Your task to perform on an android device: find snoozed emails in the gmail app Image 0: 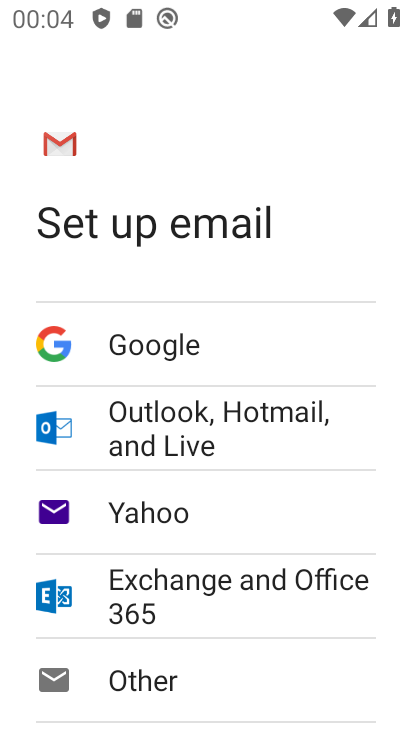
Step 0: press home button
Your task to perform on an android device: find snoozed emails in the gmail app Image 1: 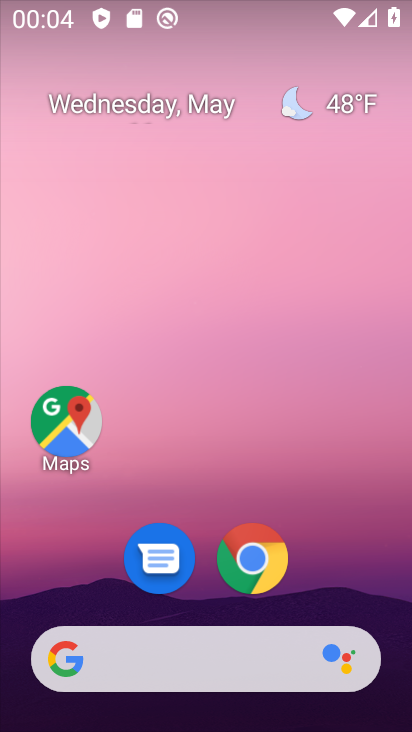
Step 1: drag from (407, 568) to (345, 174)
Your task to perform on an android device: find snoozed emails in the gmail app Image 2: 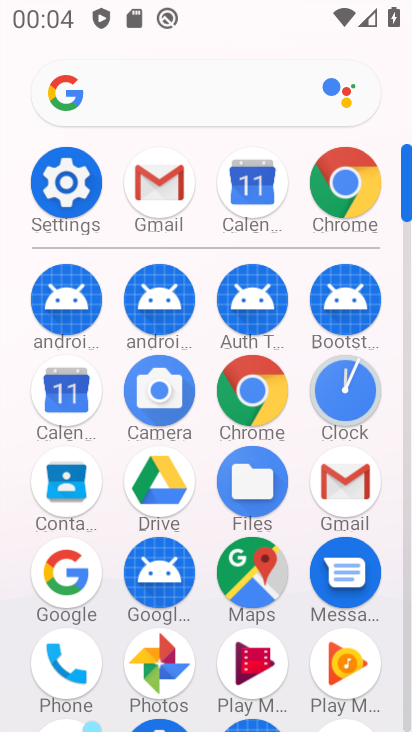
Step 2: click (166, 189)
Your task to perform on an android device: find snoozed emails in the gmail app Image 3: 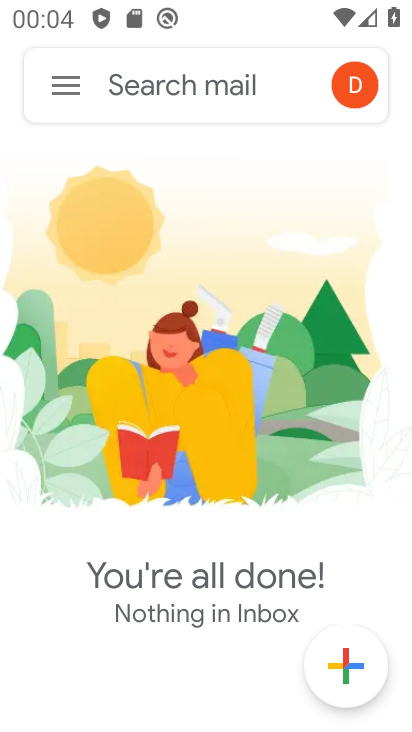
Step 3: click (78, 83)
Your task to perform on an android device: find snoozed emails in the gmail app Image 4: 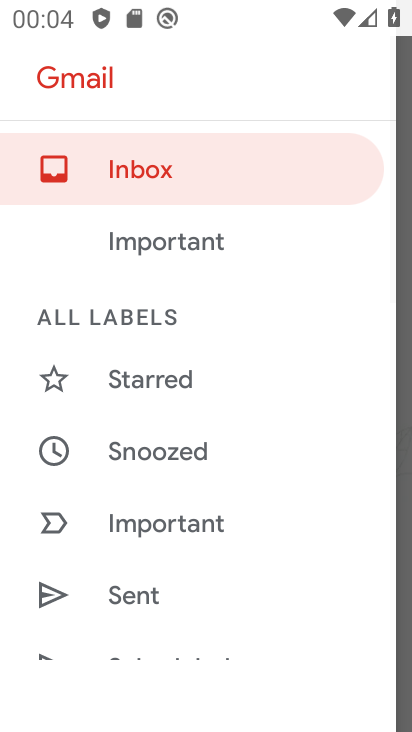
Step 4: click (146, 478)
Your task to perform on an android device: find snoozed emails in the gmail app Image 5: 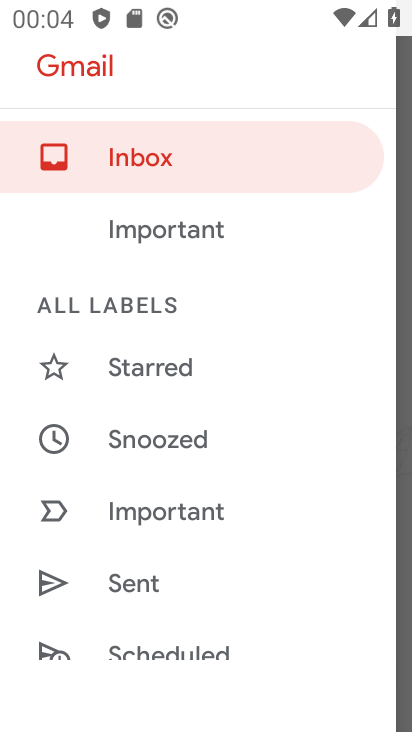
Step 5: click (159, 449)
Your task to perform on an android device: find snoozed emails in the gmail app Image 6: 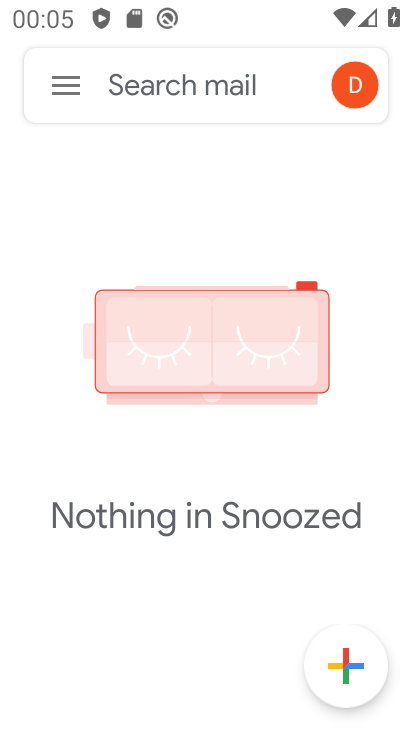
Step 6: task complete